Your task to perform on an android device: Search for vegetarian restaurants on Maps Image 0: 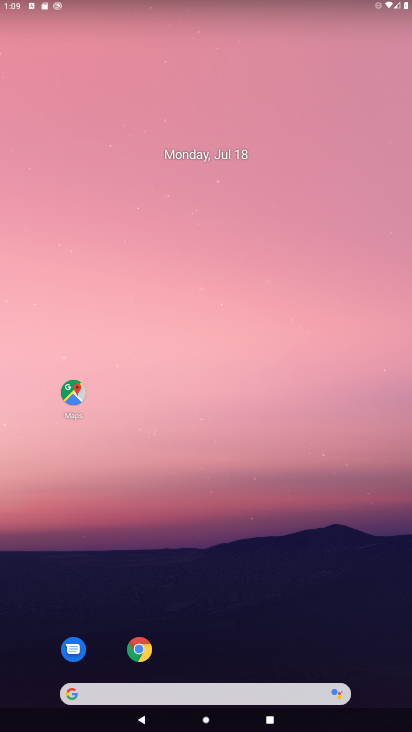
Step 0: click (73, 392)
Your task to perform on an android device: Search for vegetarian restaurants on Maps Image 1: 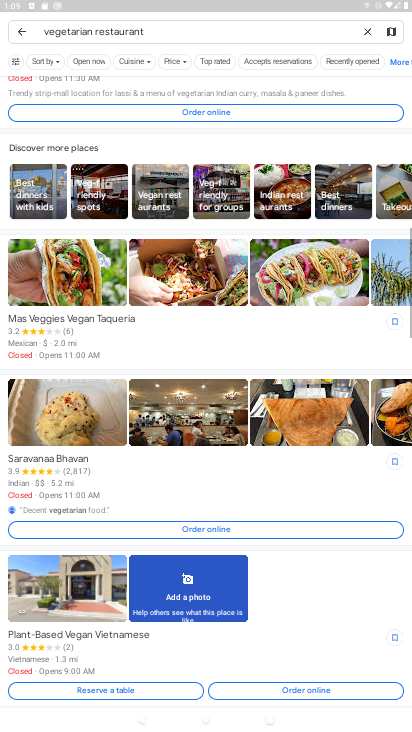
Step 1: task complete